Your task to perform on an android device: set the stopwatch Image 0: 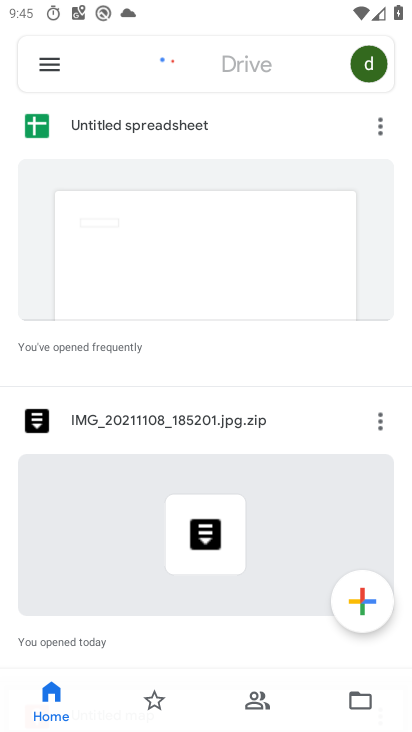
Step 0: drag from (217, 283) to (367, 1)
Your task to perform on an android device: set the stopwatch Image 1: 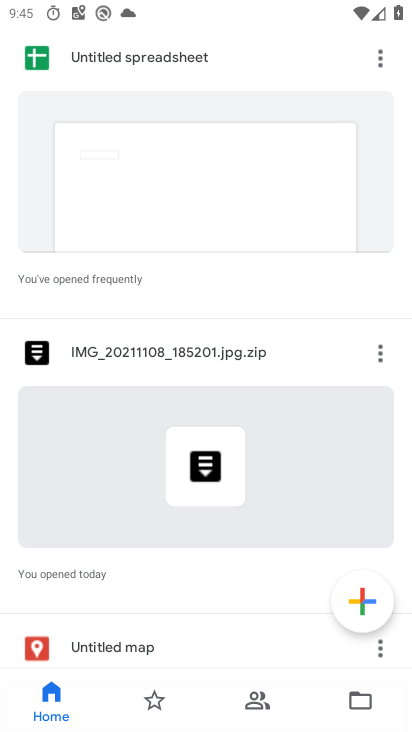
Step 1: press back button
Your task to perform on an android device: set the stopwatch Image 2: 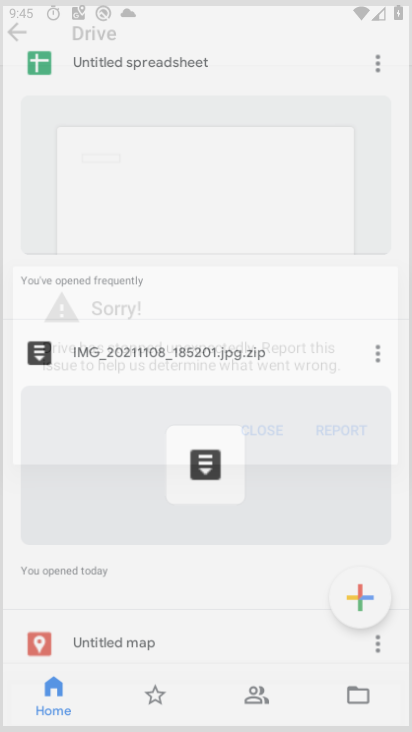
Step 2: press back button
Your task to perform on an android device: set the stopwatch Image 3: 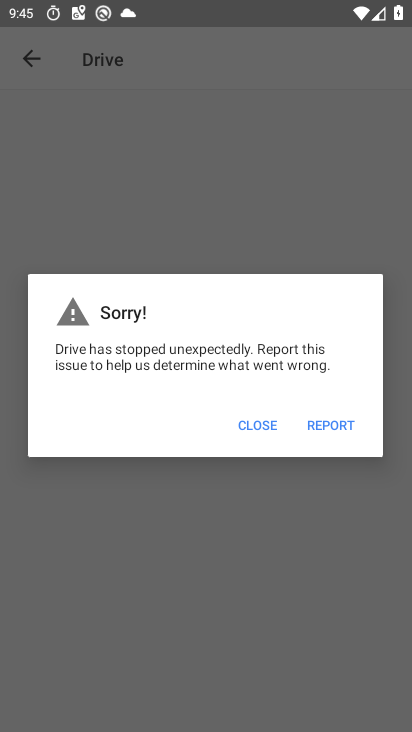
Step 3: press back button
Your task to perform on an android device: set the stopwatch Image 4: 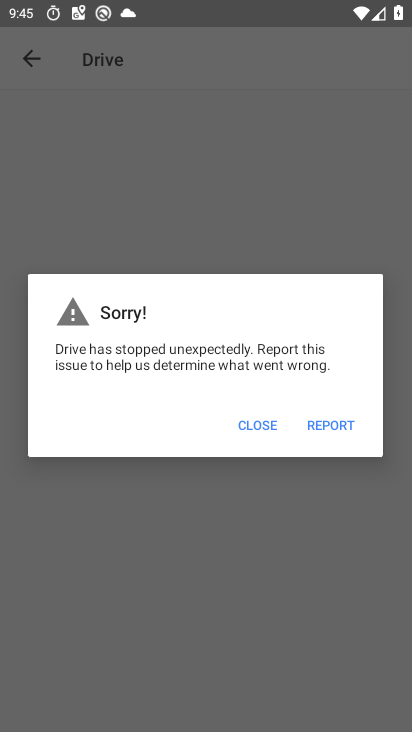
Step 4: click (253, 415)
Your task to perform on an android device: set the stopwatch Image 5: 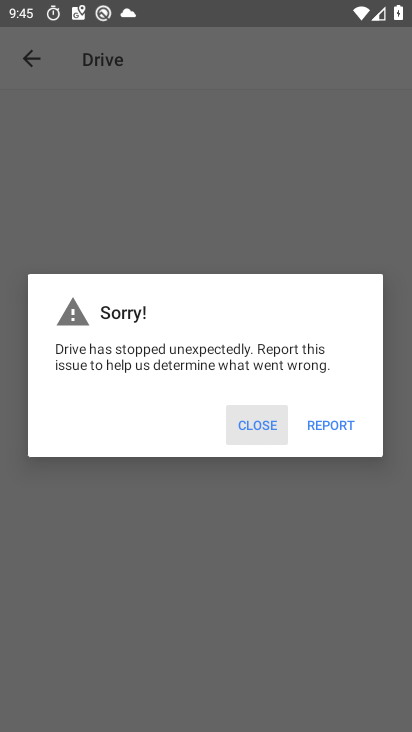
Step 5: click (255, 420)
Your task to perform on an android device: set the stopwatch Image 6: 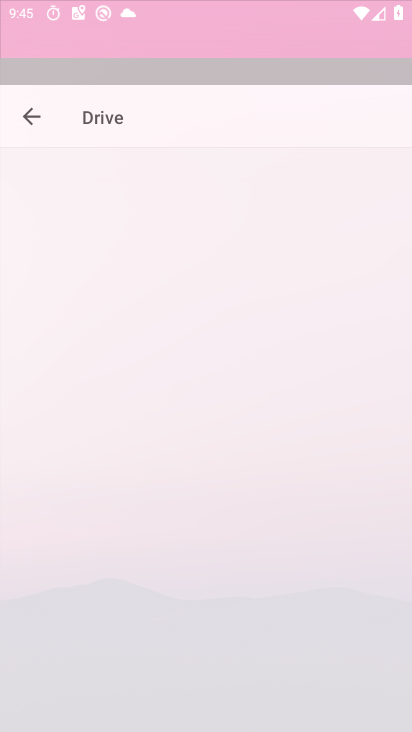
Step 6: click (249, 410)
Your task to perform on an android device: set the stopwatch Image 7: 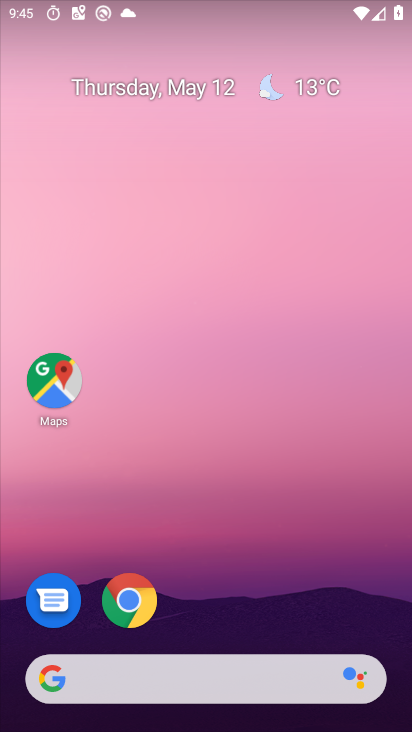
Step 7: drag from (355, 598) to (131, 82)
Your task to perform on an android device: set the stopwatch Image 8: 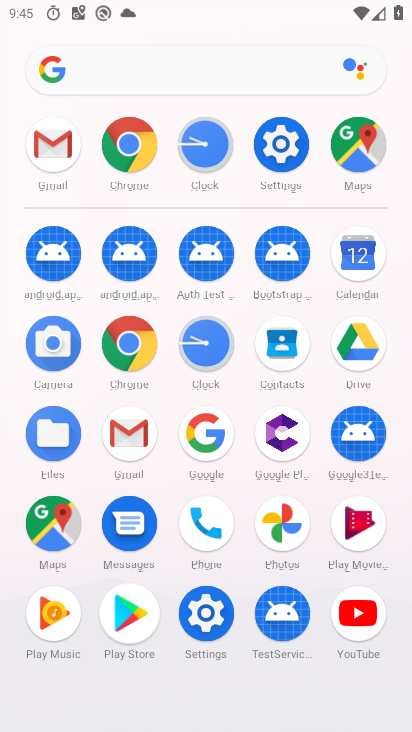
Step 8: click (209, 342)
Your task to perform on an android device: set the stopwatch Image 9: 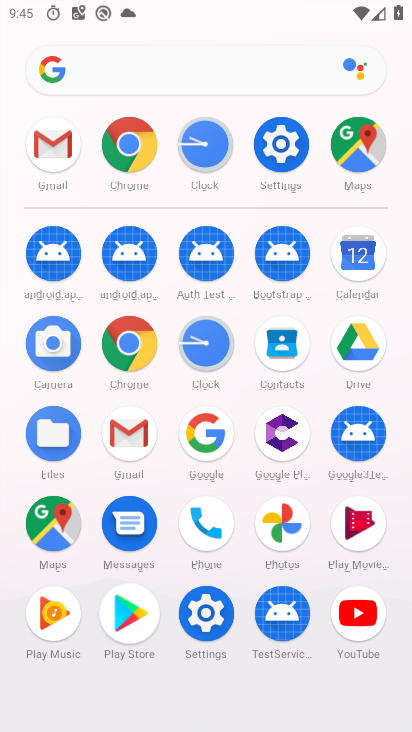
Step 9: click (209, 342)
Your task to perform on an android device: set the stopwatch Image 10: 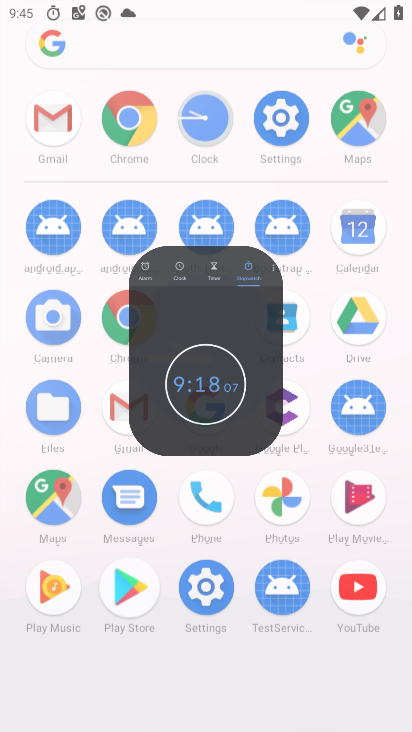
Step 10: click (208, 343)
Your task to perform on an android device: set the stopwatch Image 11: 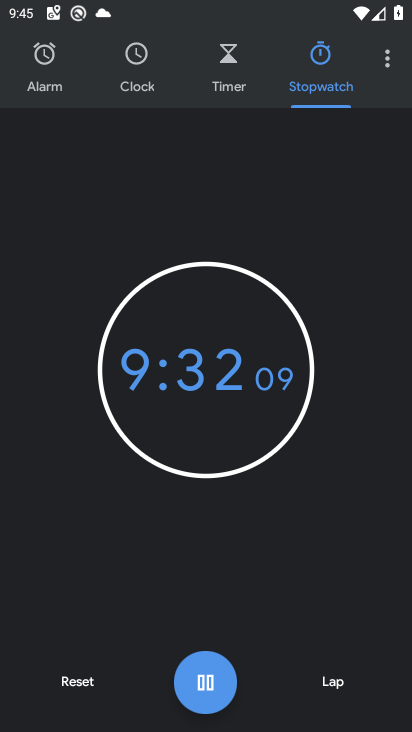
Step 11: click (206, 684)
Your task to perform on an android device: set the stopwatch Image 12: 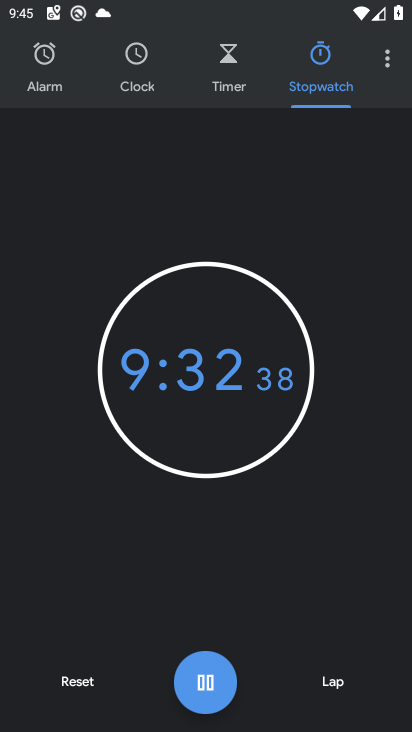
Step 12: click (205, 683)
Your task to perform on an android device: set the stopwatch Image 13: 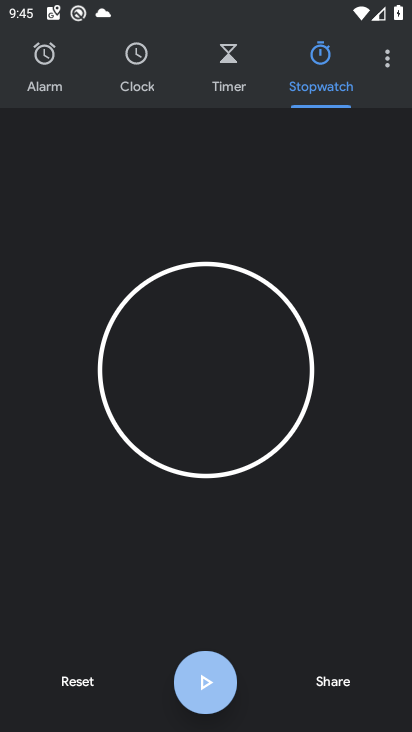
Step 13: click (205, 684)
Your task to perform on an android device: set the stopwatch Image 14: 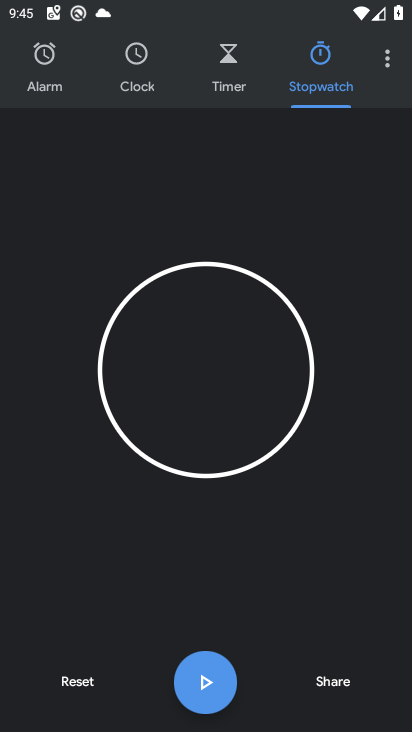
Step 14: task complete